Your task to perform on an android device: Open Reddit.com Image 0: 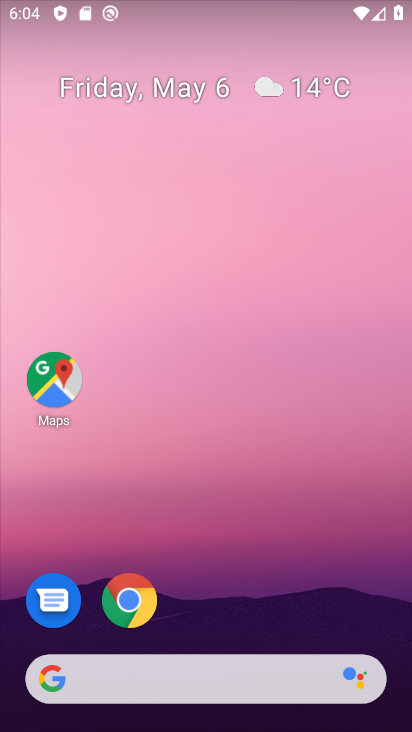
Step 0: click (127, 600)
Your task to perform on an android device: Open Reddit.com Image 1: 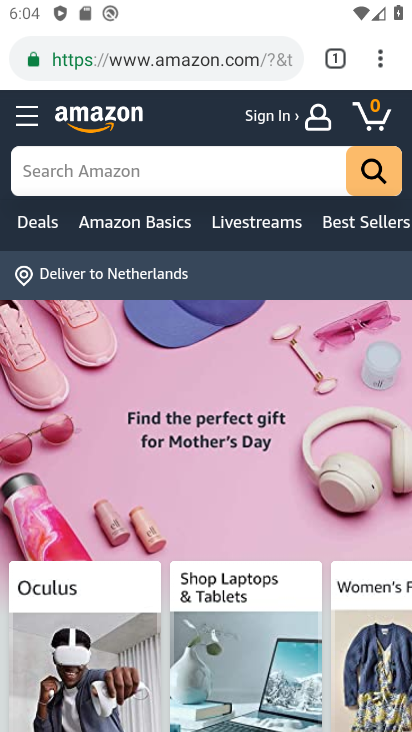
Step 1: click (236, 60)
Your task to perform on an android device: Open Reddit.com Image 2: 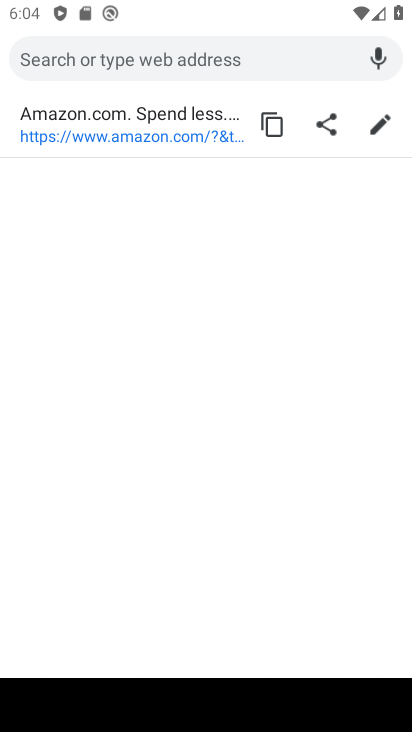
Step 2: type "Reddit.com"
Your task to perform on an android device: Open Reddit.com Image 3: 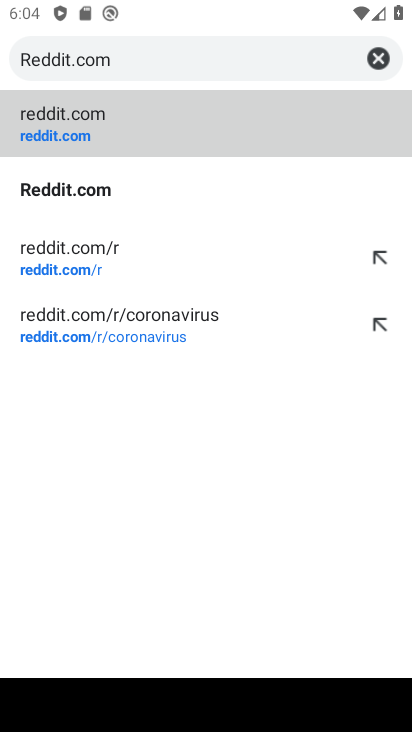
Step 3: click (73, 191)
Your task to perform on an android device: Open Reddit.com Image 4: 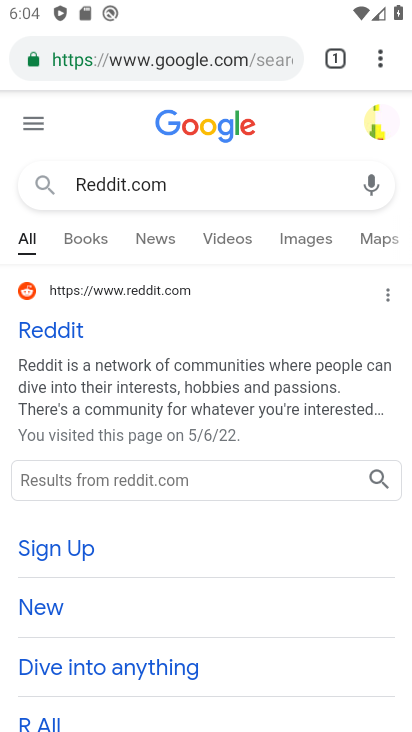
Step 4: task complete